Your task to perform on an android device: Go to location settings Image 0: 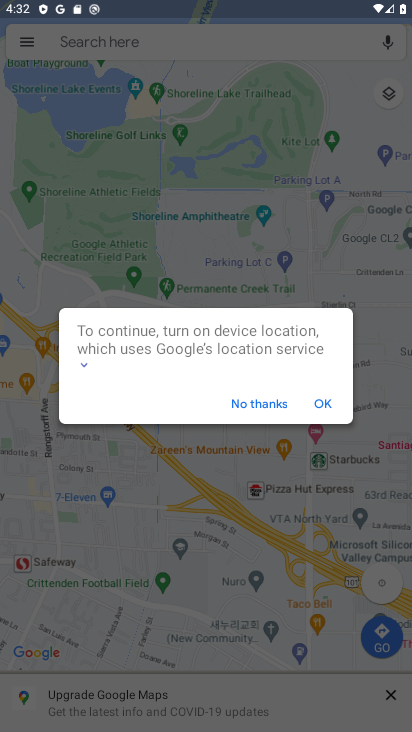
Step 0: press back button
Your task to perform on an android device: Go to location settings Image 1: 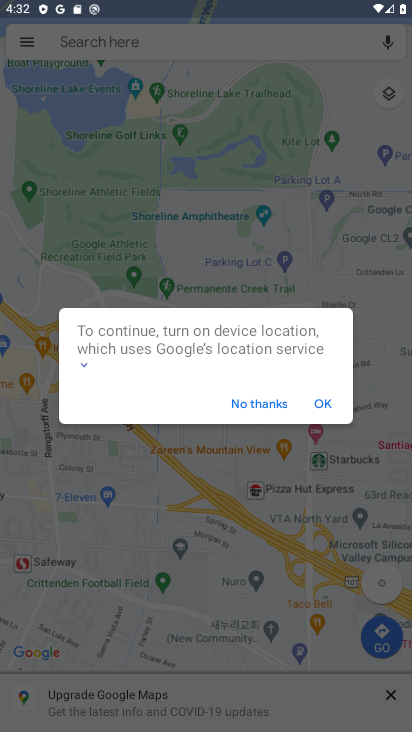
Step 1: press back button
Your task to perform on an android device: Go to location settings Image 2: 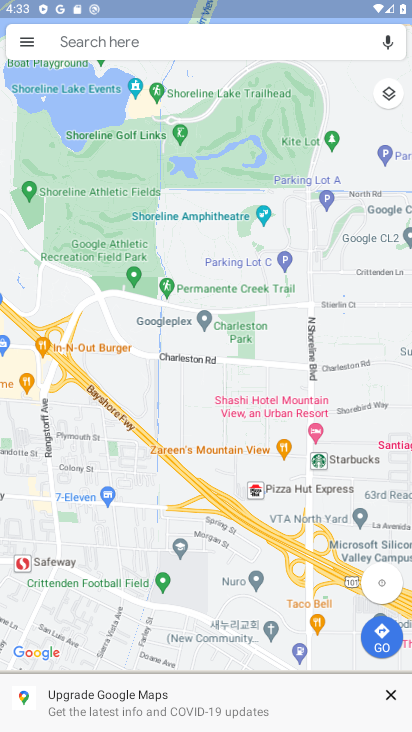
Step 2: press home button
Your task to perform on an android device: Go to location settings Image 3: 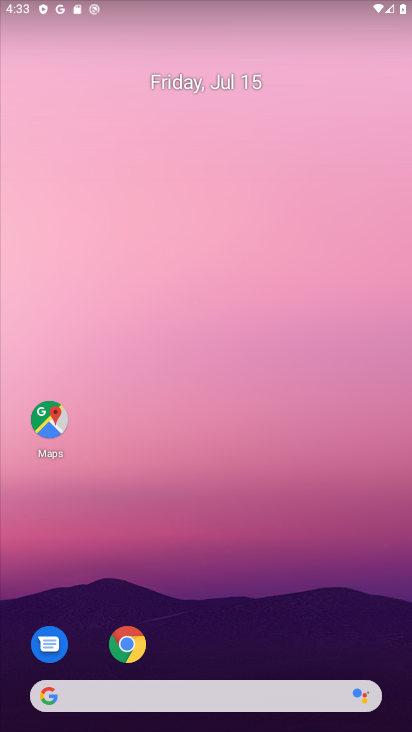
Step 3: drag from (185, 500) to (149, 289)
Your task to perform on an android device: Go to location settings Image 4: 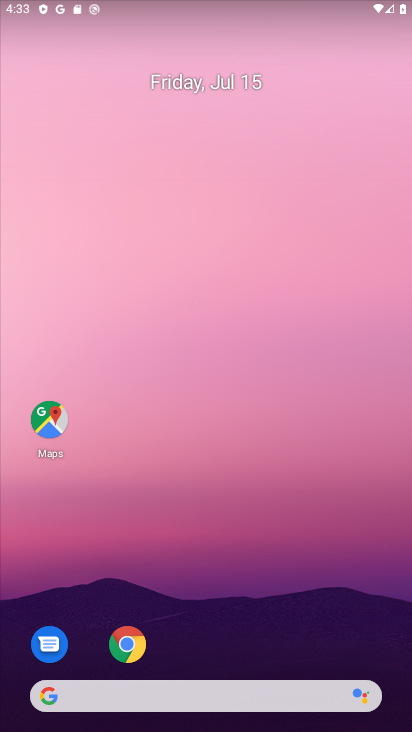
Step 4: drag from (245, 488) to (241, 173)
Your task to perform on an android device: Go to location settings Image 5: 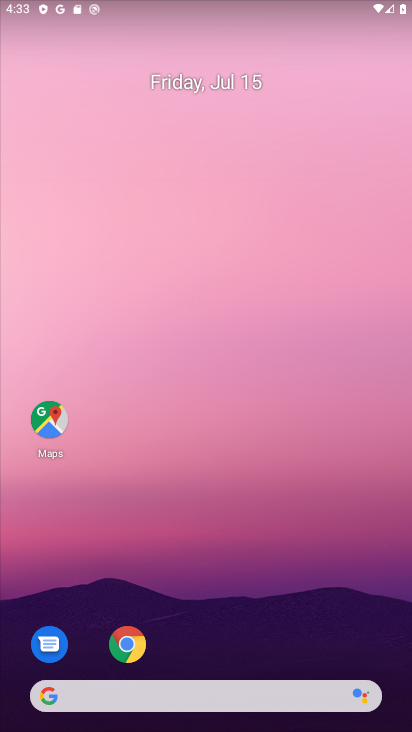
Step 5: drag from (202, 467) to (239, 1)
Your task to perform on an android device: Go to location settings Image 6: 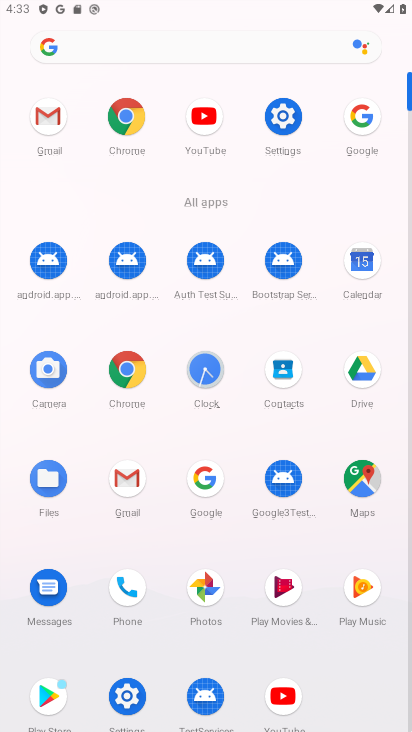
Step 6: click (266, 111)
Your task to perform on an android device: Go to location settings Image 7: 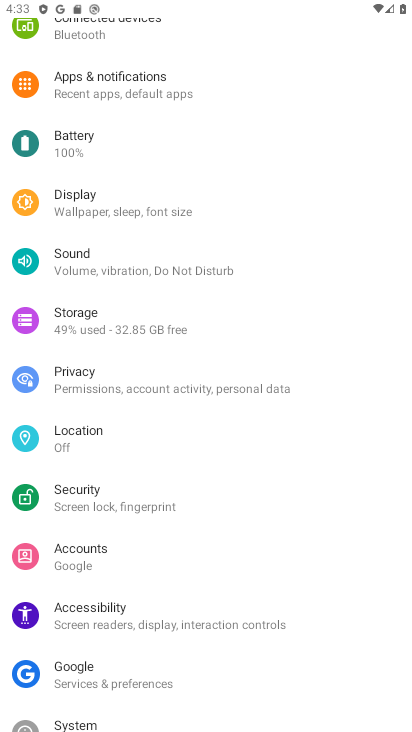
Step 7: click (104, 434)
Your task to perform on an android device: Go to location settings Image 8: 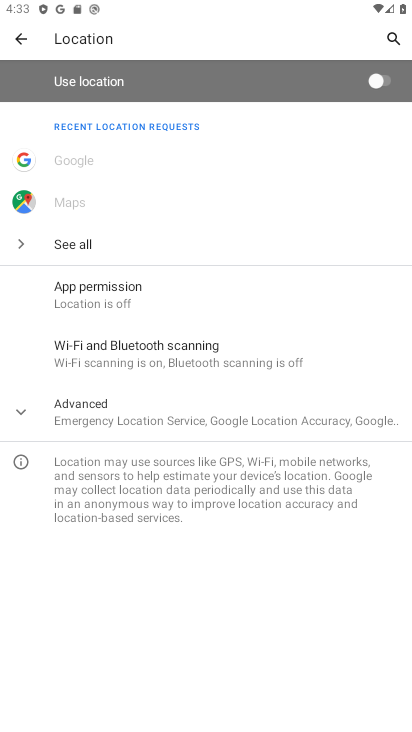
Step 8: task complete